Your task to perform on an android device: What is the news today? Image 0: 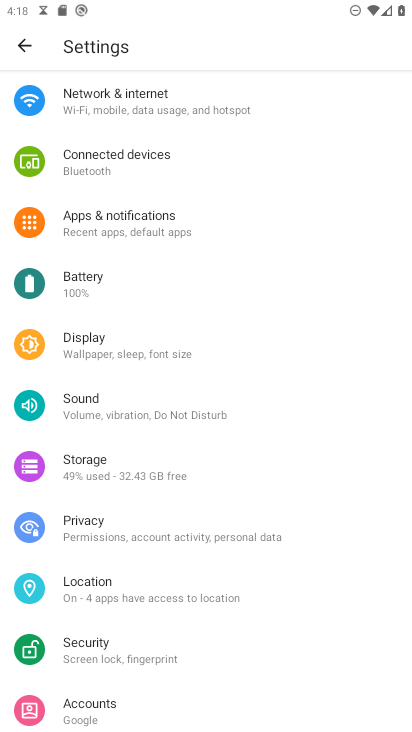
Step 0: press home button
Your task to perform on an android device: What is the news today? Image 1: 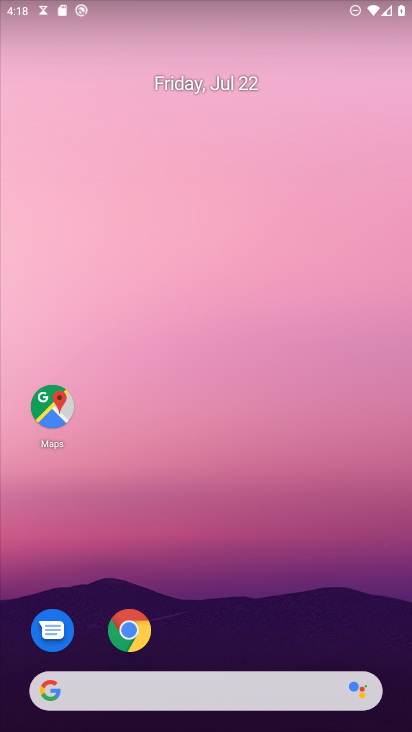
Step 1: click (222, 692)
Your task to perform on an android device: What is the news today? Image 2: 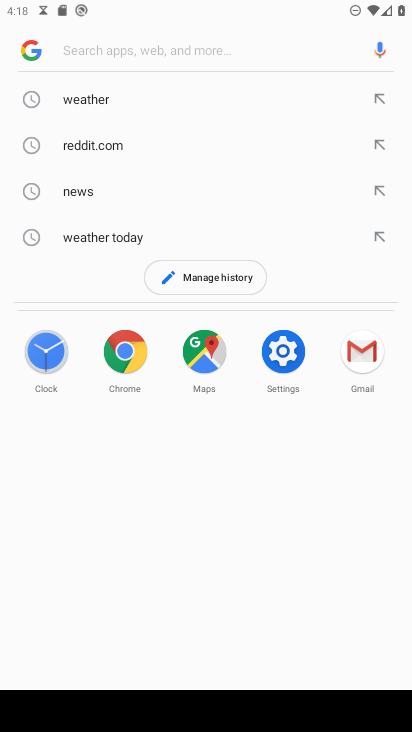
Step 2: type "news today ?"
Your task to perform on an android device: What is the news today? Image 3: 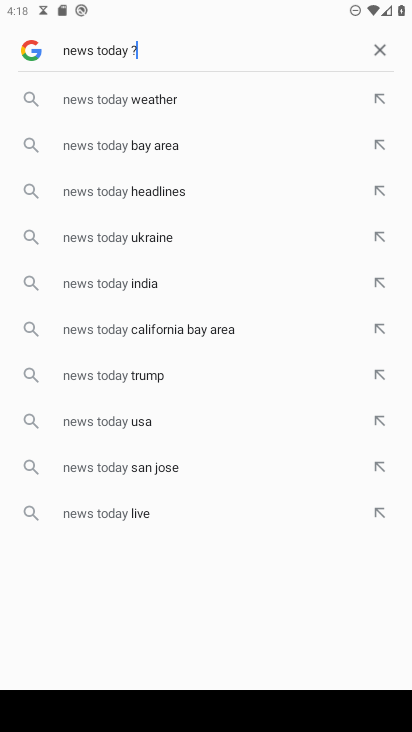
Step 3: click (99, 283)
Your task to perform on an android device: What is the news today? Image 4: 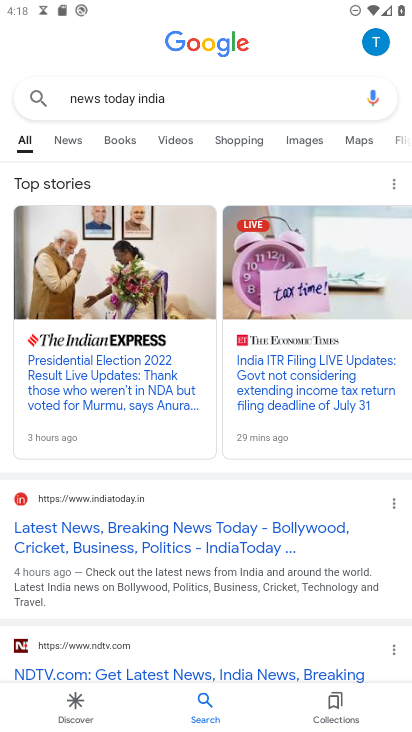
Step 4: task complete